Your task to perform on an android device: change notification settings in the gmail app Image 0: 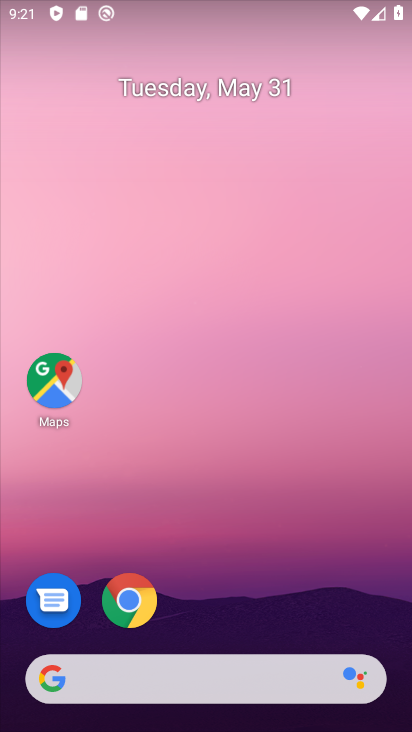
Step 0: drag from (249, 635) to (277, 315)
Your task to perform on an android device: change notification settings in the gmail app Image 1: 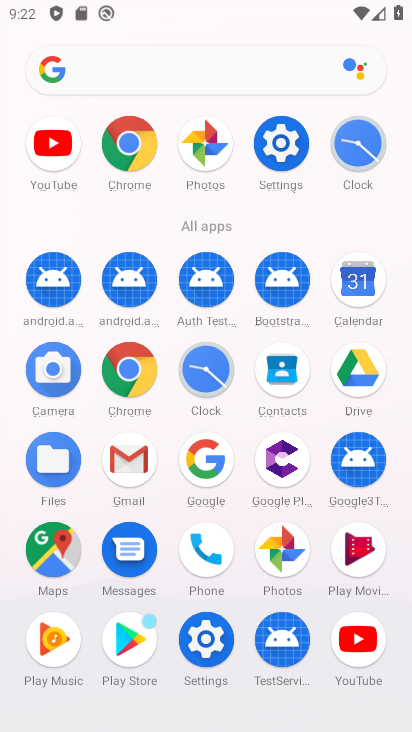
Step 1: click (143, 462)
Your task to perform on an android device: change notification settings in the gmail app Image 2: 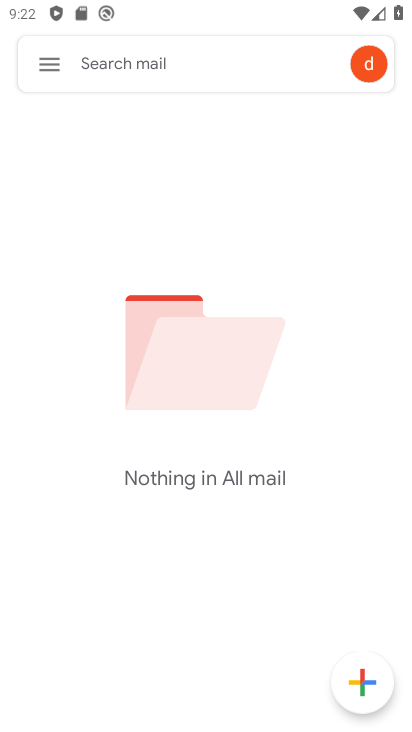
Step 2: click (52, 71)
Your task to perform on an android device: change notification settings in the gmail app Image 3: 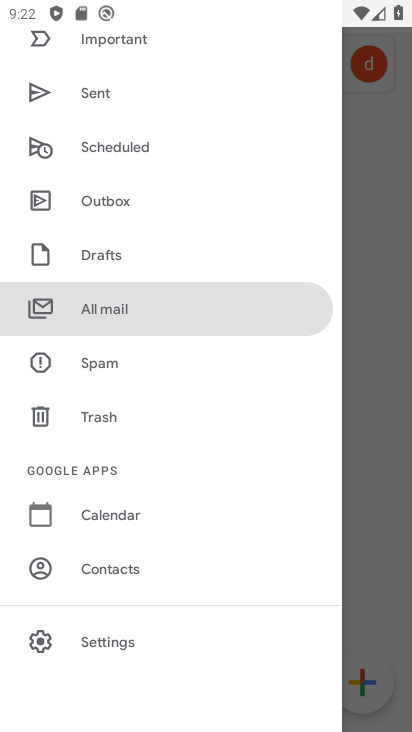
Step 3: click (104, 641)
Your task to perform on an android device: change notification settings in the gmail app Image 4: 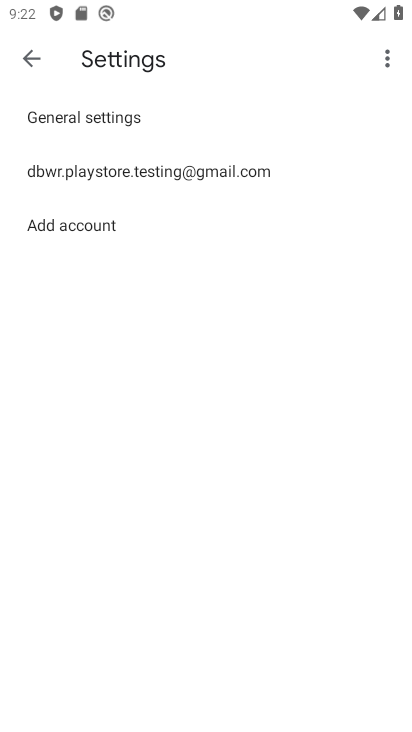
Step 4: click (197, 185)
Your task to perform on an android device: change notification settings in the gmail app Image 5: 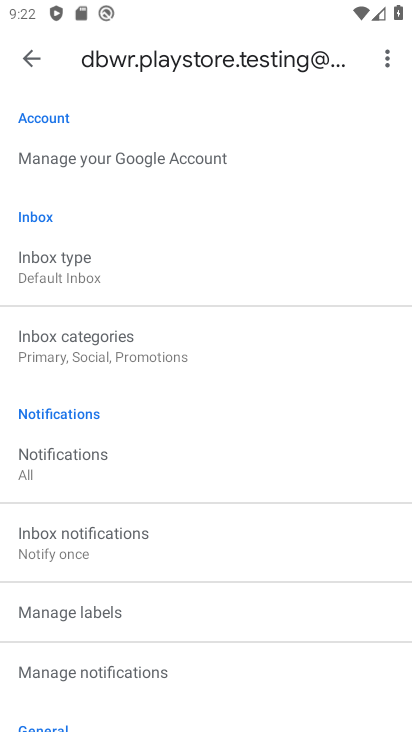
Step 5: drag from (80, 565) to (140, 340)
Your task to perform on an android device: change notification settings in the gmail app Image 6: 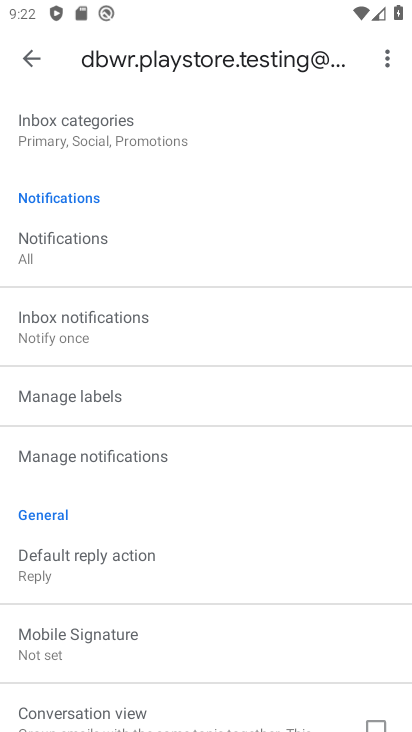
Step 6: click (83, 455)
Your task to perform on an android device: change notification settings in the gmail app Image 7: 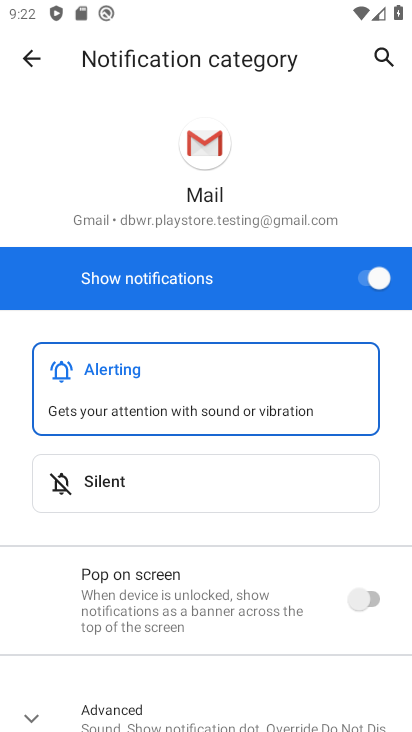
Step 7: click (389, 603)
Your task to perform on an android device: change notification settings in the gmail app Image 8: 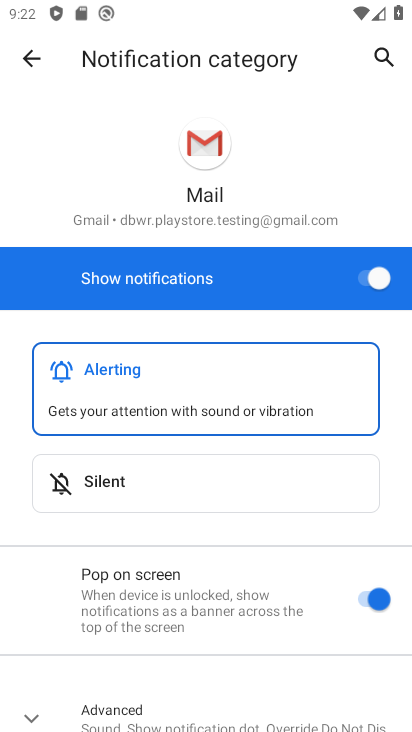
Step 8: task complete